Your task to perform on an android device: empty trash in google photos Image 0: 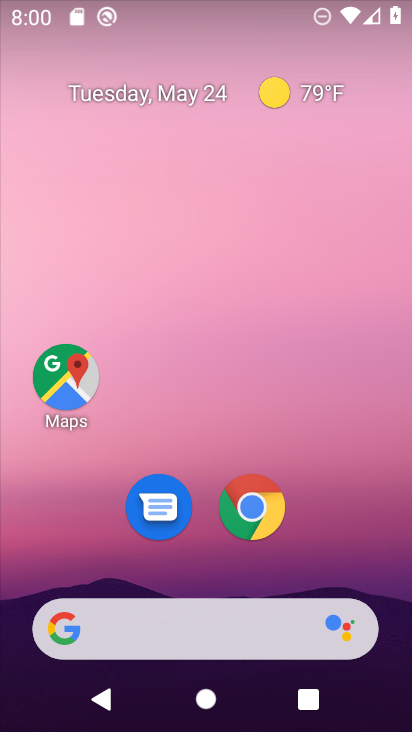
Step 0: click (259, 52)
Your task to perform on an android device: empty trash in google photos Image 1: 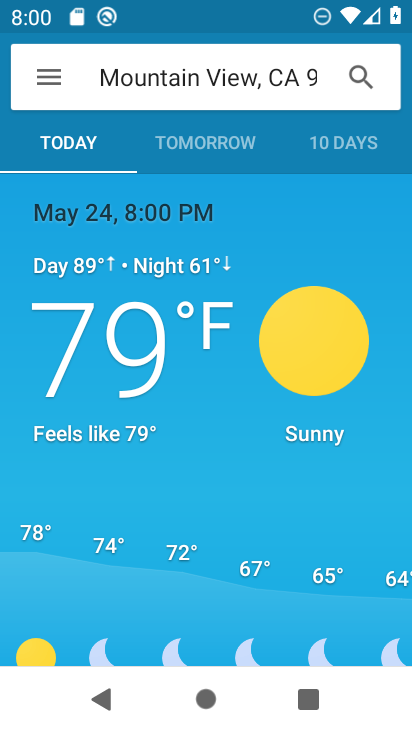
Step 1: press back button
Your task to perform on an android device: empty trash in google photos Image 2: 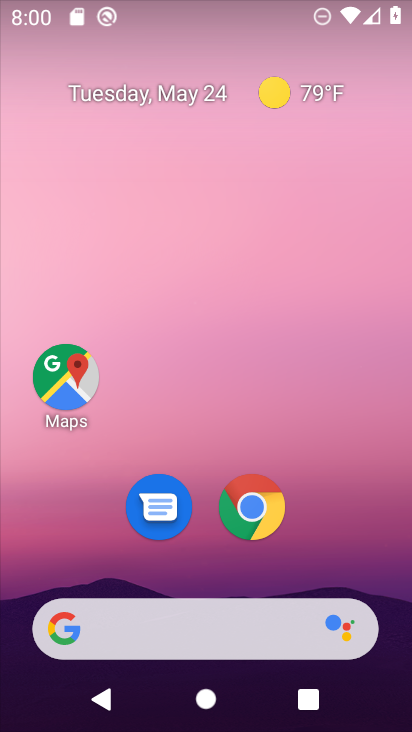
Step 2: drag from (254, 243) to (220, 17)
Your task to perform on an android device: empty trash in google photos Image 3: 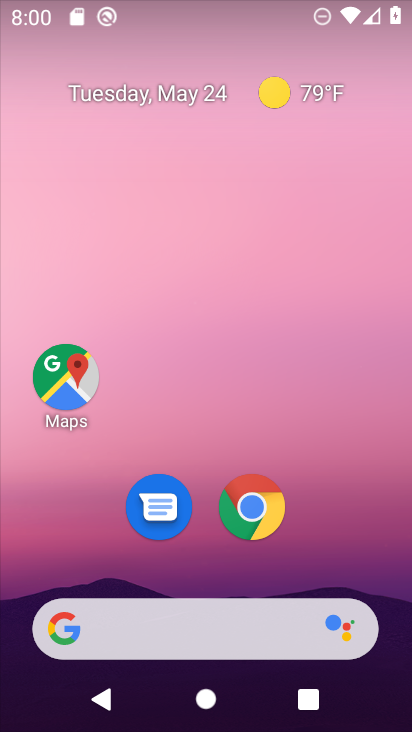
Step 3: drag from (331, 541) to (189, 7)
Your task to perform on an android device: empty trash in google photos Image 4: 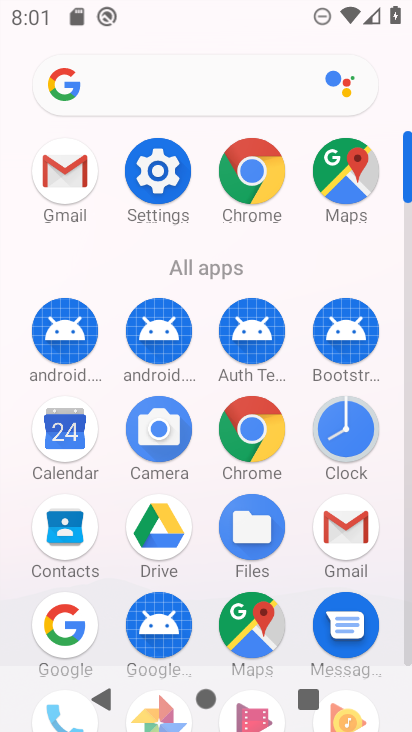
Step 4: drag from (8, 554) to (7, 221)
Your task to perform on an android device: empty trash in google photos Image 5: 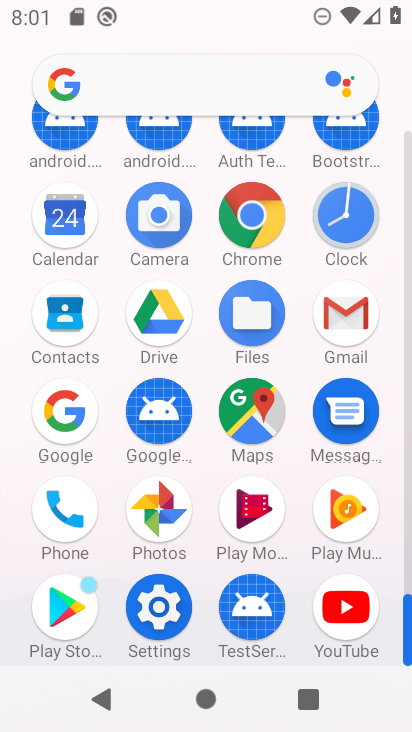
Step 5: click (160, 507)
Your task to perform on an android device: empty trash in google photos Image 6: 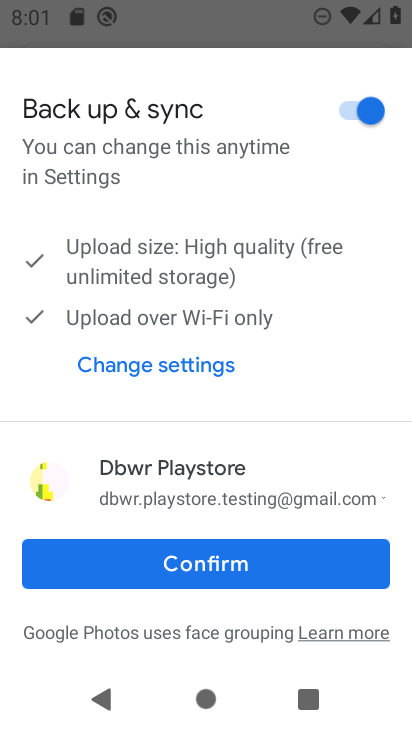
Step 6: click (155, 549)
Your task to perform on an android device: empty trash in google photos Image 7: 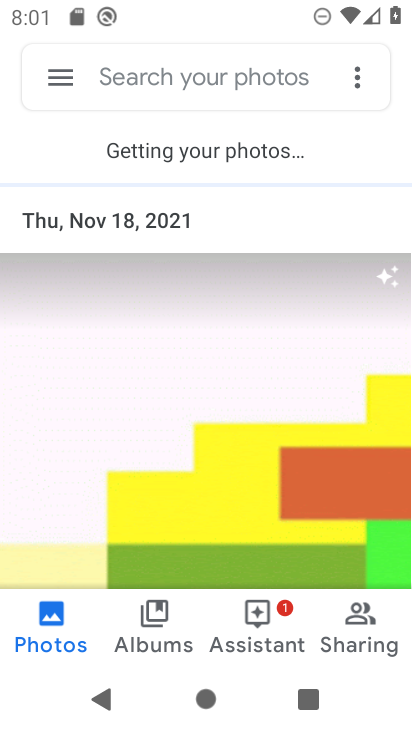
Step 7: click (59, 72)
Your task to perform on an android device: empty trash in google photos Image 8: 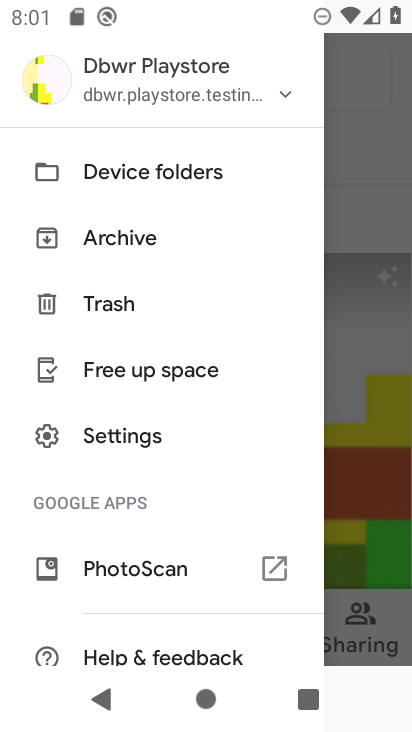
Step 8: click (126, 309)
Your task to perform on an android device: empty trash in google photos Image 9: 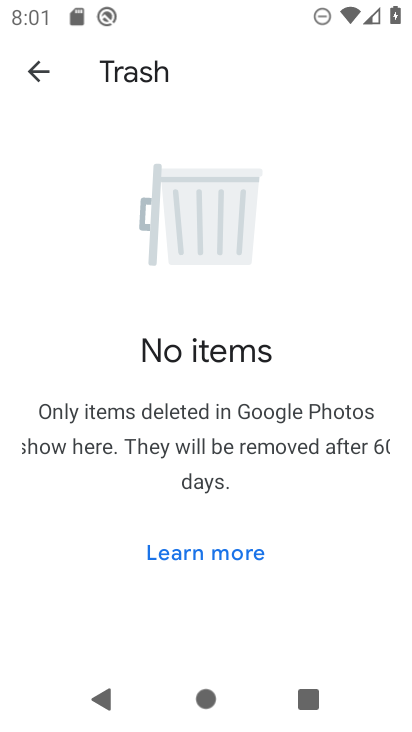
Step 9: task complete